Your task to perform on an android device: Open settings on Google Maps Image 0: 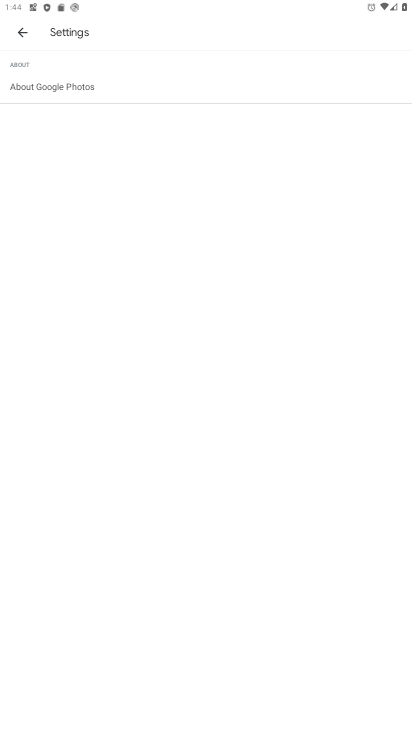
Step 0: press home button
Your task to perform on an android device: Open settings on Google Maps Image 1: 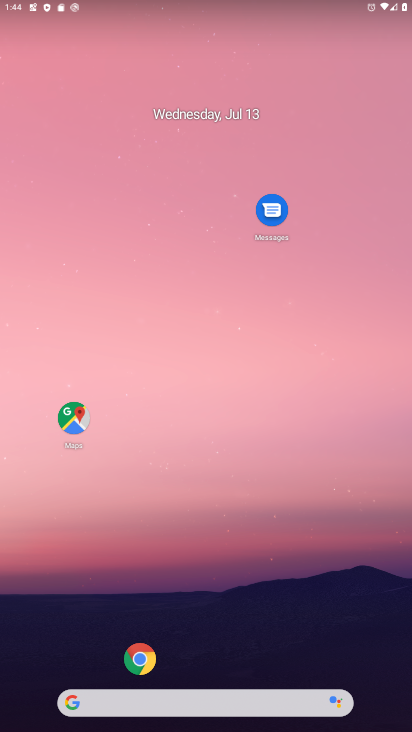
Step 1: drag from (96, 559) to (297, 33)
Your task to perform on an android device: Open settings on Google Maps Image 2: 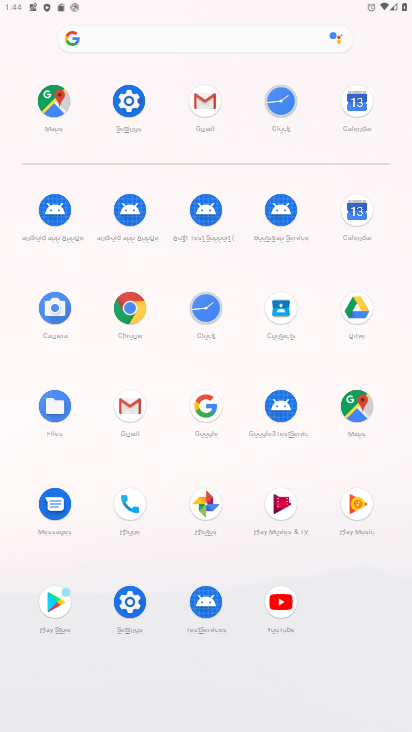
Step 2: click (134, 607)
Your task to perform on an android device: Open settings on Google Maps Image 3: 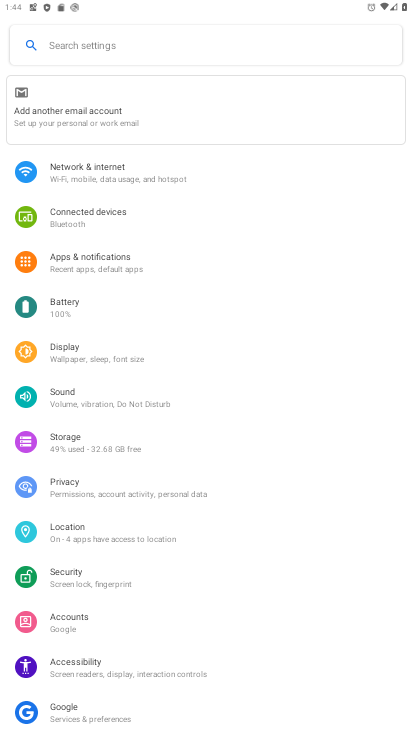
Step 3: press home button
Your task to perform on an android device: Open settings on Google Maps Image 4: 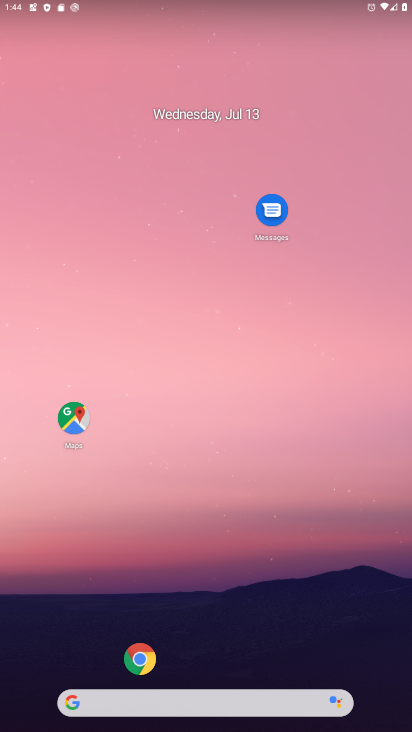
Step 4: click (77, 429)
Your task to perform on an android device: Open settings on Google Maps Image 5: 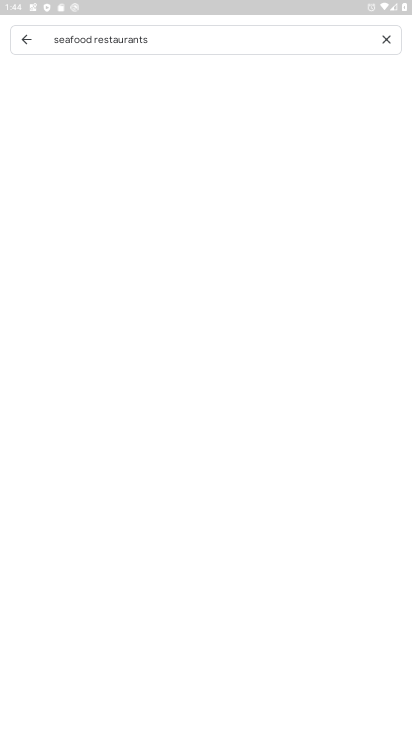
Step 5: click (21, 44)
Your task to perform on an android device: Open settings on Google Maps Image 6: 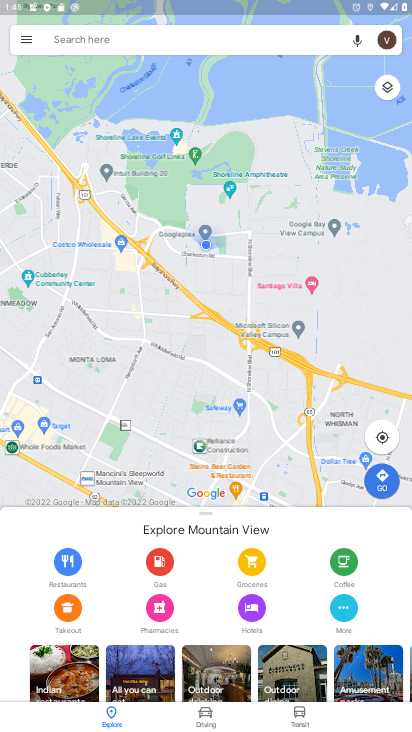
Step 6: task complete